Your task to perform on an android device: Find coffee shops on Maps Image 0: 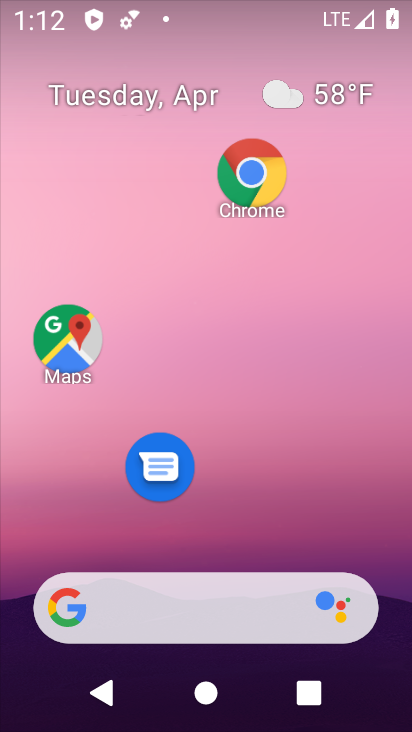
Step 0: drag from (347, 551) to (352, 4)
Your task to perform on an android device: Find coffee shops on Maps Image 1: 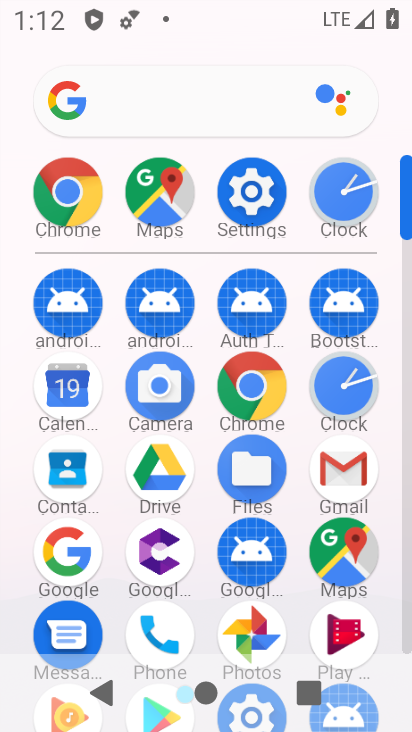
Step 1: drag from (311, 588) to (309, 214)
Your task to perform on an android device: Find coffee shops on Maps Image 2: 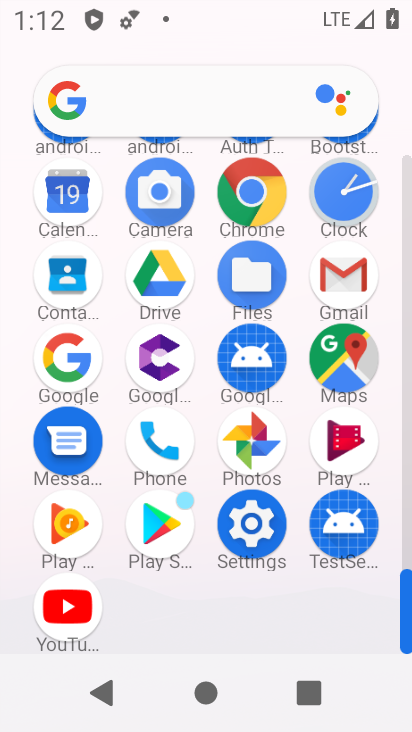
Step 2: click (371, 344)
Your task to perform on an android device: Find coffee shops on Maps Image 3: 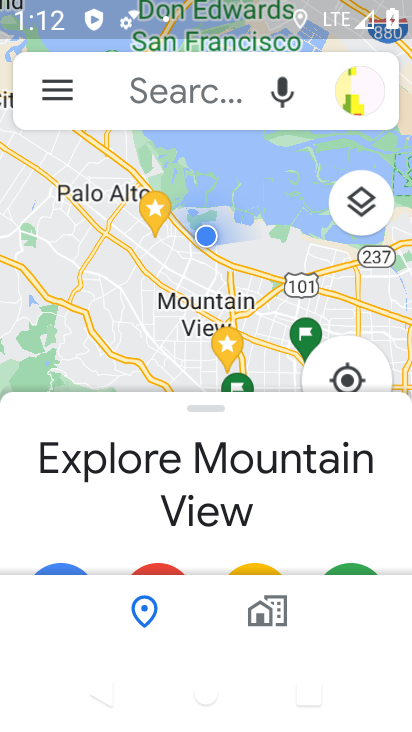
Step 3: click (240, 73)
Your task to perform on an android device: Find coffee shops on Maps Image 4: 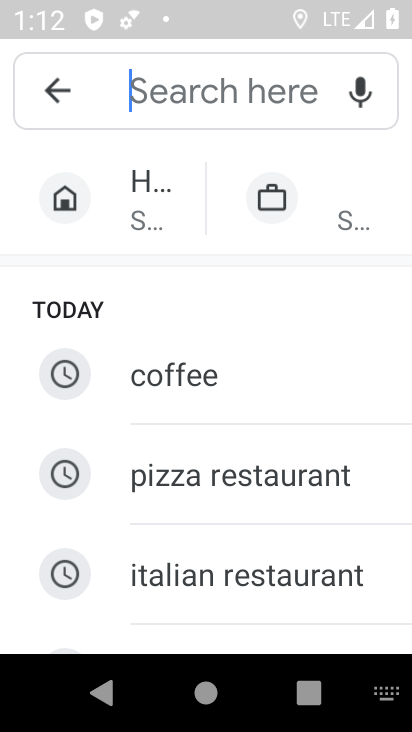
Step 4: click (185, 90)
Your task to perform on an android device: Find coffee shops on Maps Image 5: 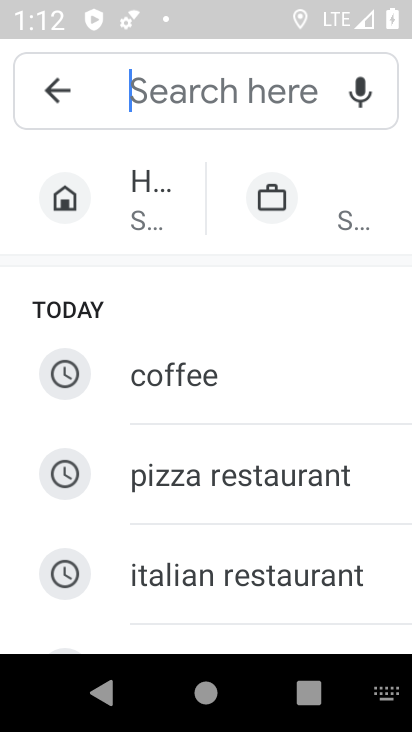
Step 5: type "coffee shop"
Your task to perform on an android device: Find coffee shops on Maps Image 6: 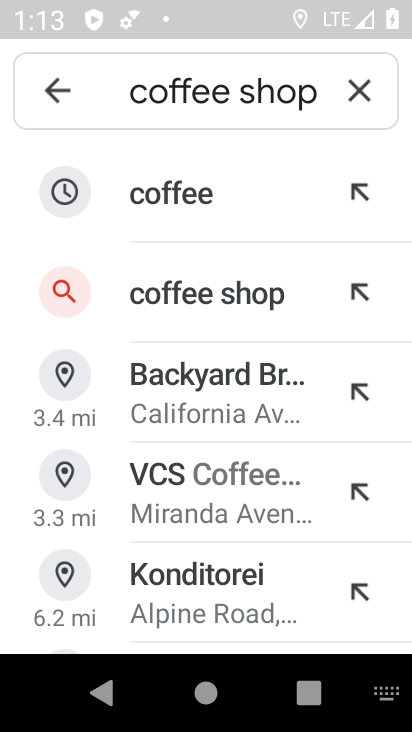
Step 6: click (218, 282)
Your task to perform on an android device: Find coffee shops on Maps Image 7: 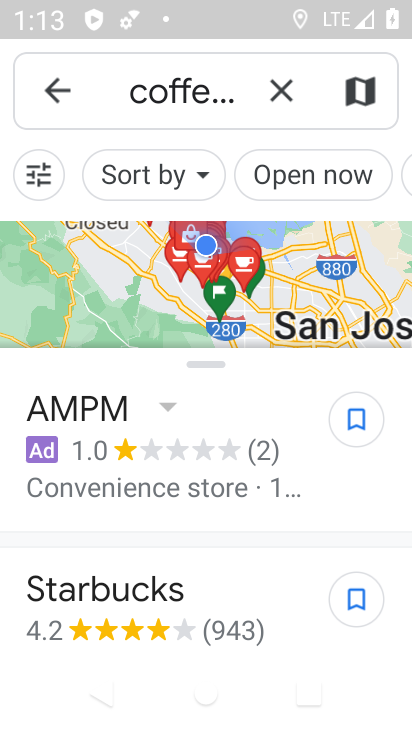
Step 7: task complete